Your task to perform on an android device: Open Youtube and go to "Your channel" Image 0: 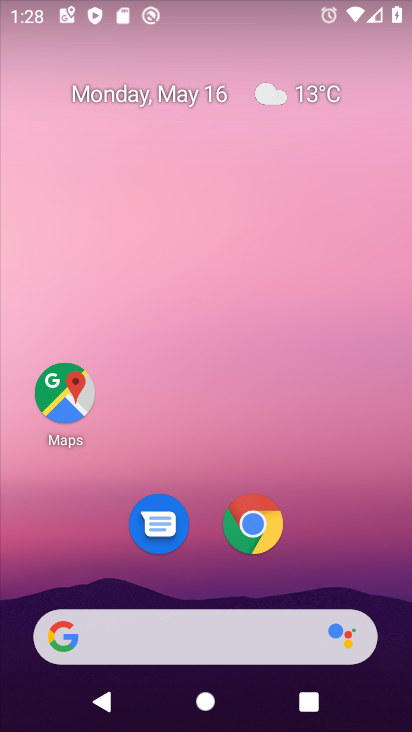
Step 0: drag from (338, 509) to (300, 29)
Your task to perform on an android device: Open Youtube and go to "Your channel" Image 1: 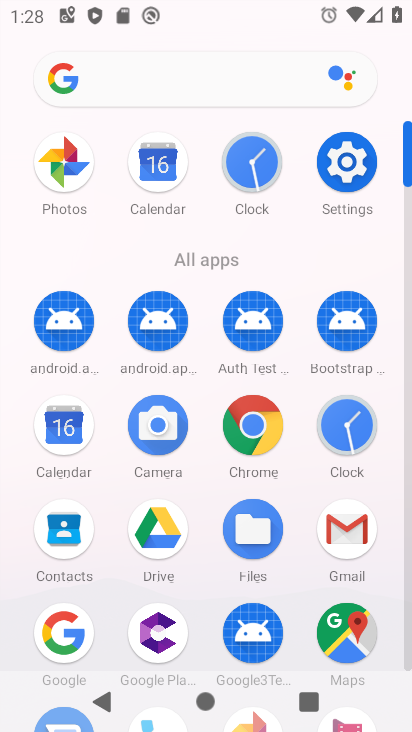
Step 1: drag from (212, 471) to (169, 123)
Your task to perform on an android device: Open Youtube and go to "Your channel" Image 2: 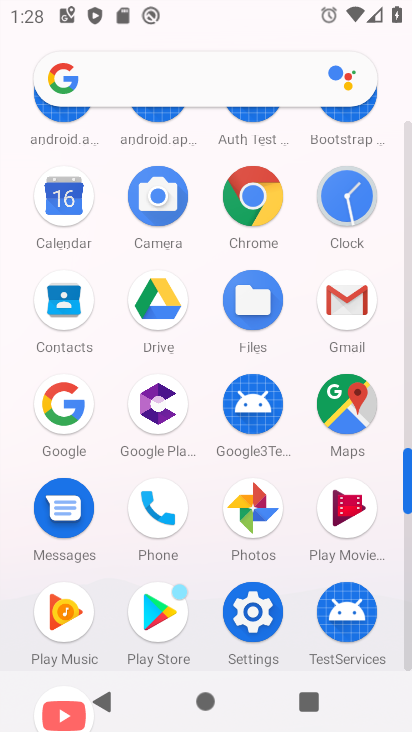
Step 2: drag from (138, 552) to (103, 284)
Your task to perform on an android device: Open Youtube and go to "Your channel" Image 3: 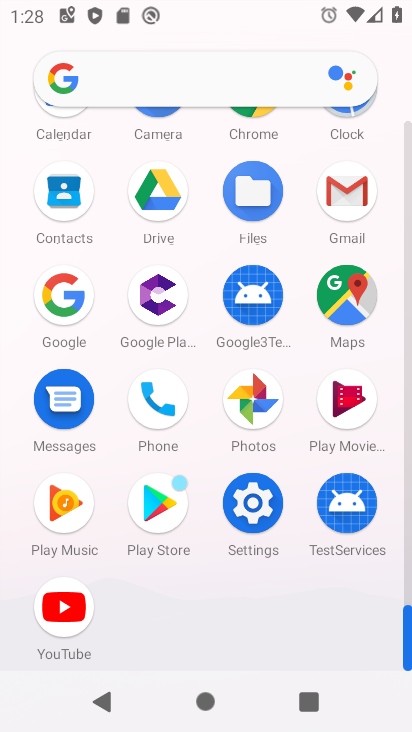
Step 3: click (60, 597)
Your task to perform on an android device: Open Youtube and go to "Your channel" Image 4: 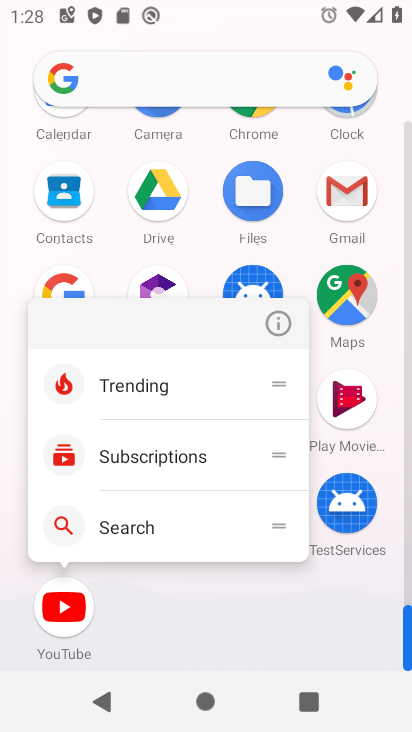
Step 4: click (74, 599)
Your task to perform on an android device: Open Youtube and go to "Your channel" Image 5: 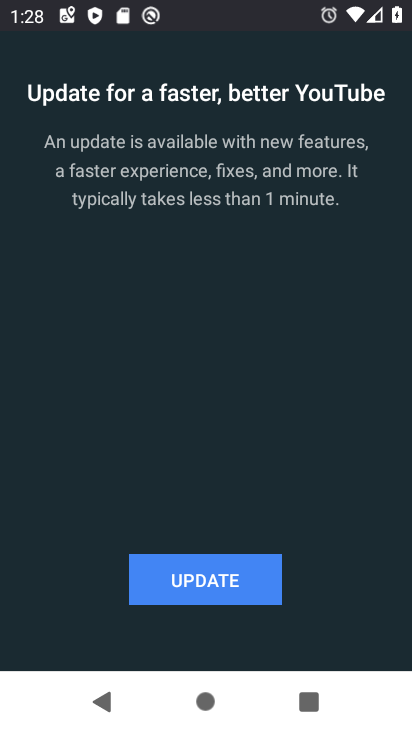
Step 5: click (177, 577)
Your task to perform on an android device: Open Youtube and go to "Your channel" Image 6: 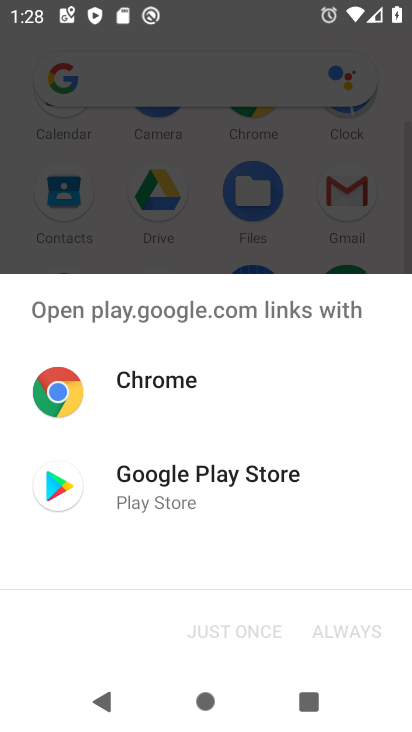
Step 6: click (165, 481)
Your task to perform on an android device: Open Youtube and go to "Your channel" Image 7: 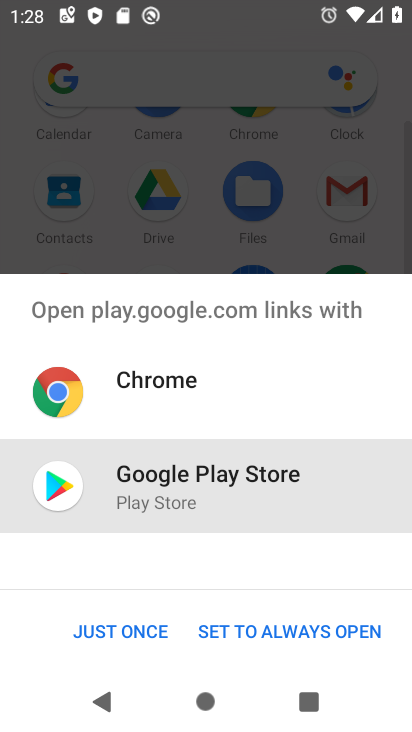
Step 7: click (123, 631)
Your task to perform on an android device: Open Youtube and go to "Your channel" Image 8: 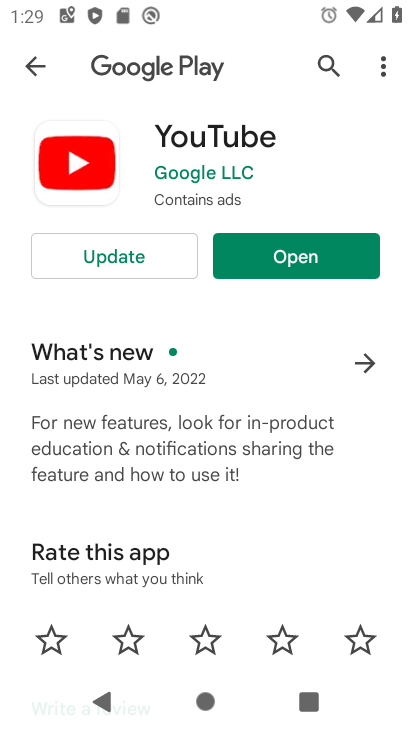
Step 8: click (140, 258)
Your task to perform on an android device: Open Youtube and go to "Your channel" Image 9: 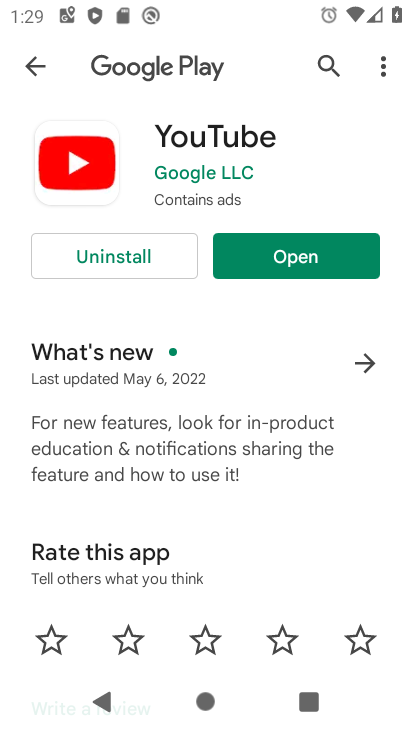
Step 9: click (320, 257)
Your task to perform on an android device: Open Youtube and go to "Your channel" Image 10: 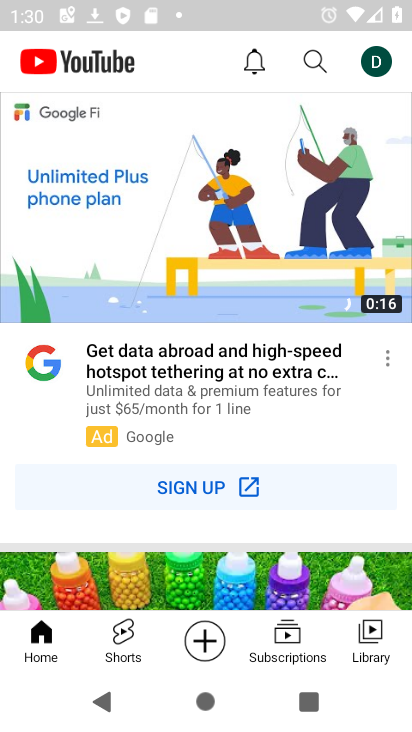
Step 10: click (373, 61)
Your task to perform on an android device: Open Youtube and go to "Your channel" Image 11: 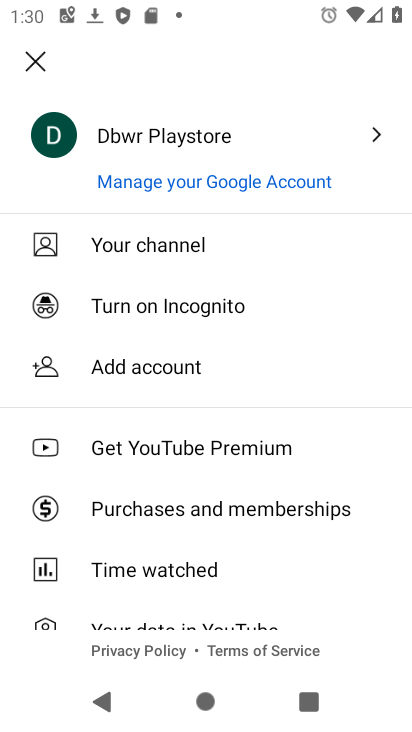
Step 11: click (200, 240)
Your task to perform on an android device: Open Youtube and go to "Your channel" Image 12: 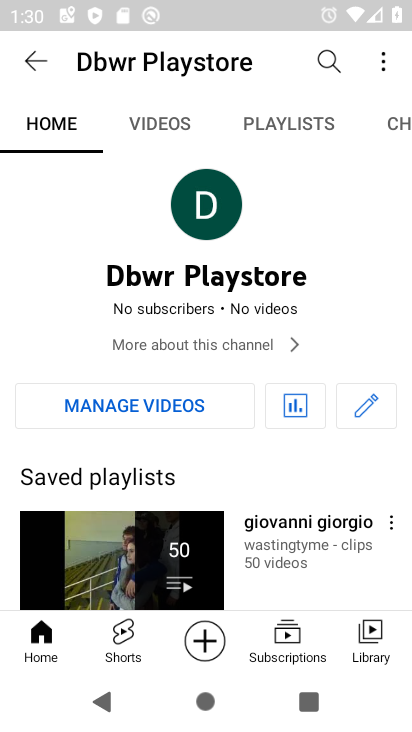
Step 12: task complete